Your task to perform on an android device: Open Youtube and go to "Your channel" Image 0: 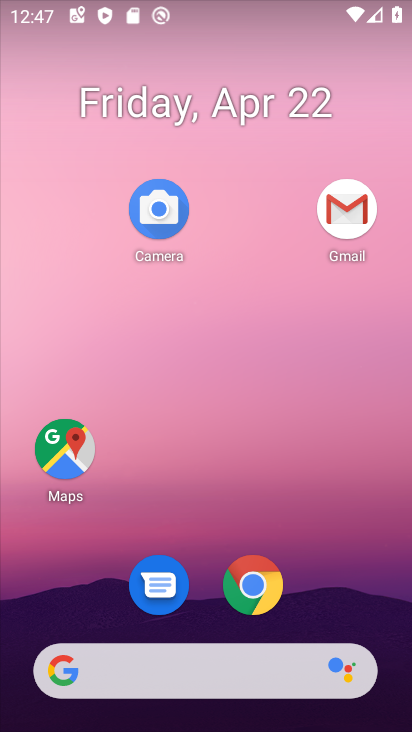
Step 0: drag from (313, 588) to (306, 89)
Your task to perform on an android device: Open Youtube and go to "Your channel" Image 1: 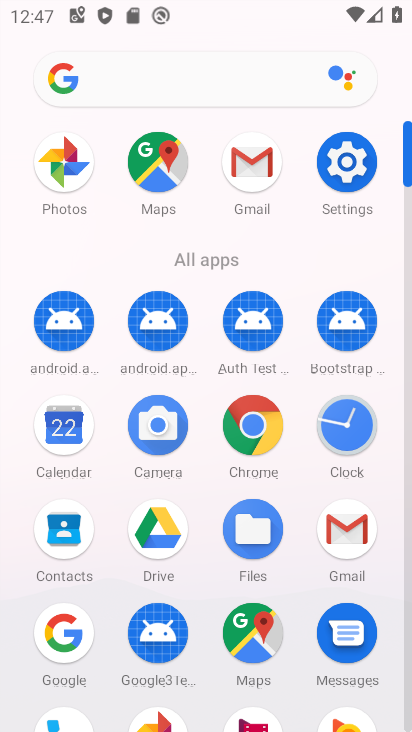
Step 1: drag from (300, 564) to (300, 256)
Your task to perform on an android device: Open Youtube and go to "Your channel" Image 2: 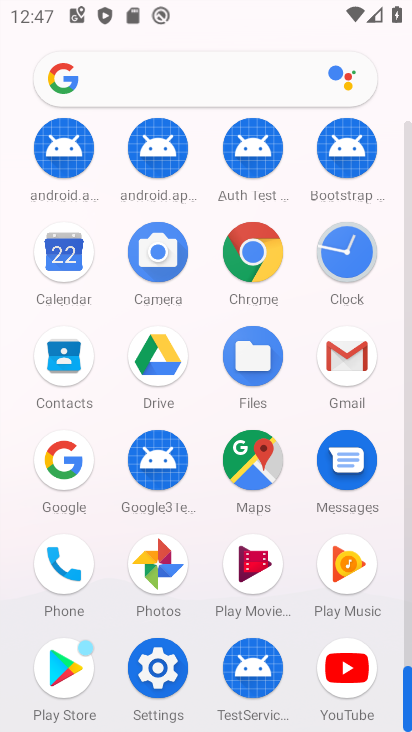
Step 2: click (338, 660)
Your task to perform on an android device: Open Youtube and go to "Your channel" Image 3: 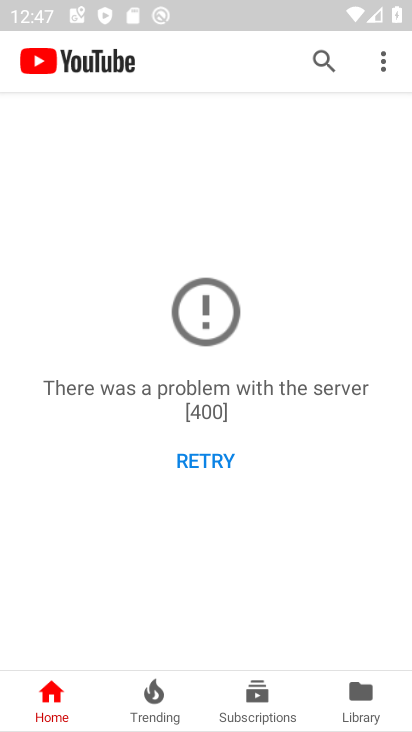
Step 3: click (379, 53)
Your task to perform on an android device: Open Youtube and go to "Your channel" Image 4: 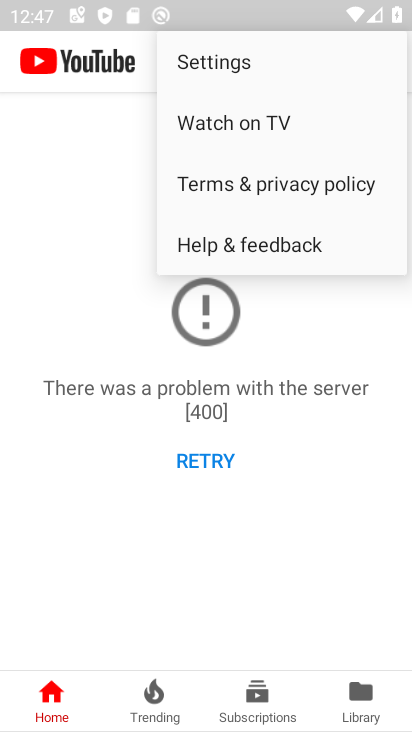
Step 4: click (332, 56)
Your task to perform on an android device: Open Youtube and go to "Your channel" Image 5: 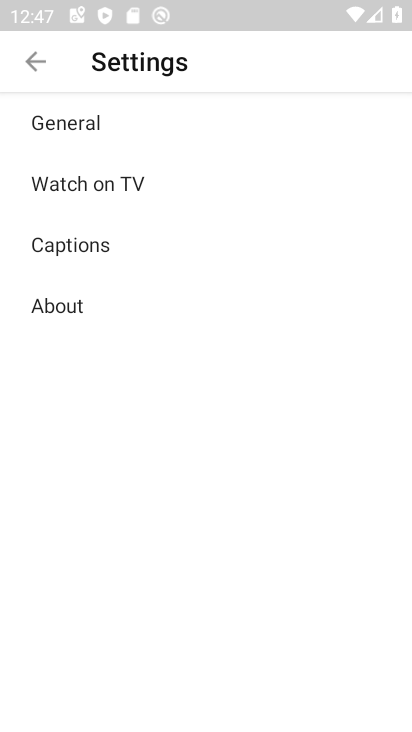
Step 5: click (33, 57)
Your task to perform on an android device: Open Youtube and go to "Your channel" Image 6: 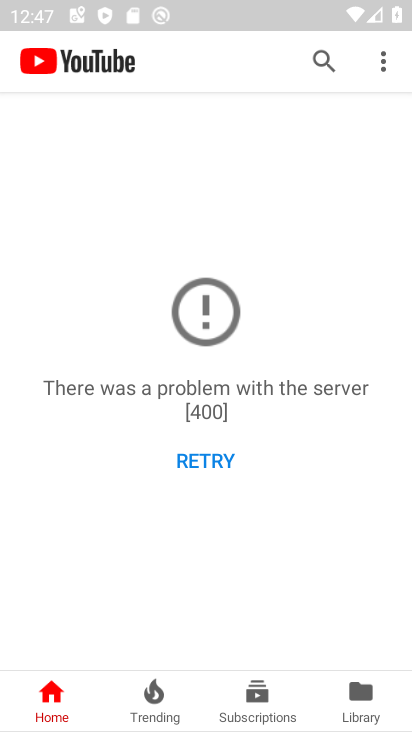
Step 6: click (364, 691)
Your task to perform on an android device: Open Youtube and go to "Your channel" Image 7: 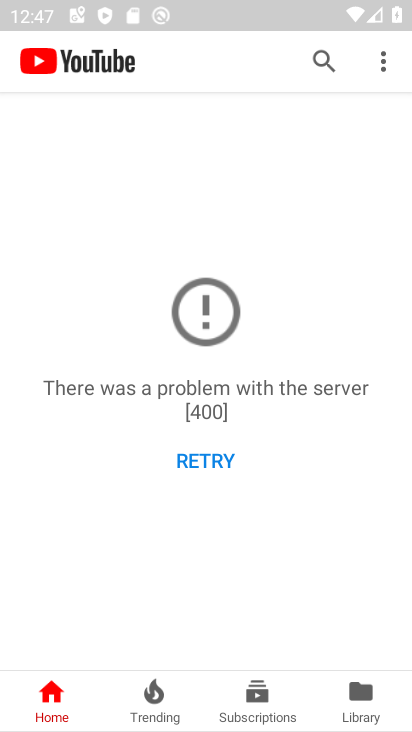
Step 7: click (364, 691)
Your task to perform on an android device: Open Youtube and go to "Your channel" Image 8: 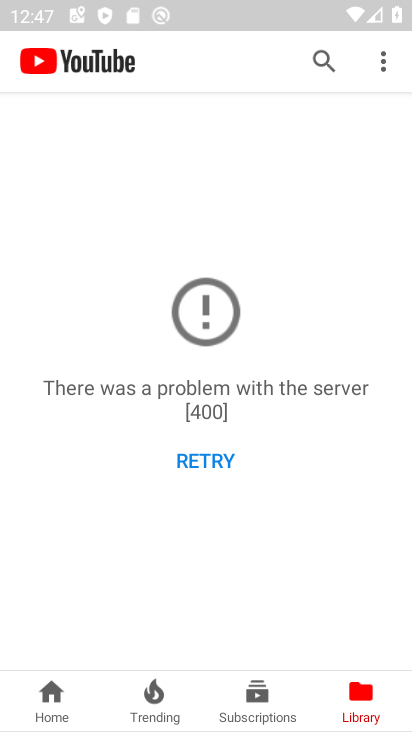
Step 8: task complete